Your task to perform on an android device: find snoozed emails in the gmail app Image 0: 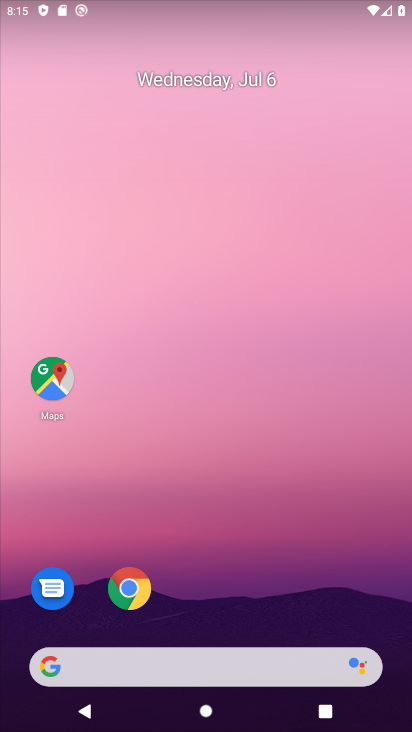
Step 0: drag from (316, 626) to (305, 209)
Your task to perform on an android device: find snoozed emails in the gmail app Image 1: 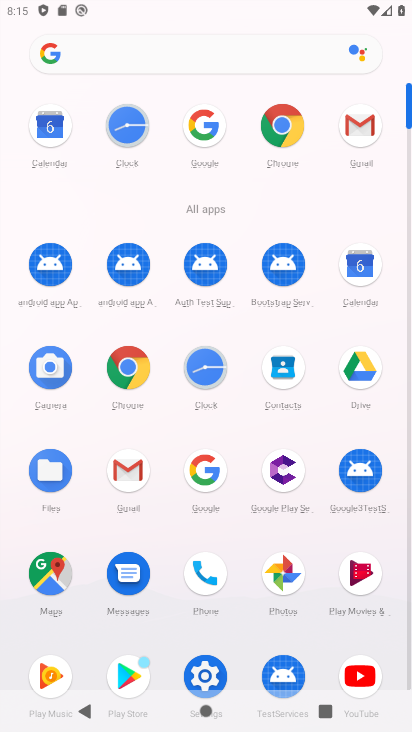
Step 1: click (352, 121)
Your task to perform on an android device: find snoozed emails in the gmail app Image 2: 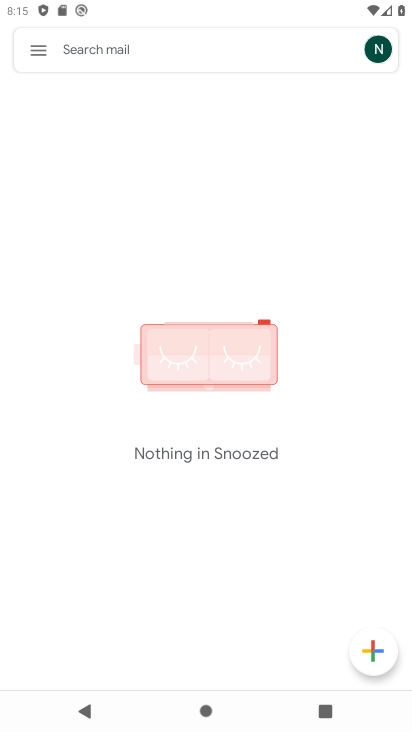
Step 2: task complete